Your task to perform on an android device: When is my next appointment? Image 0: 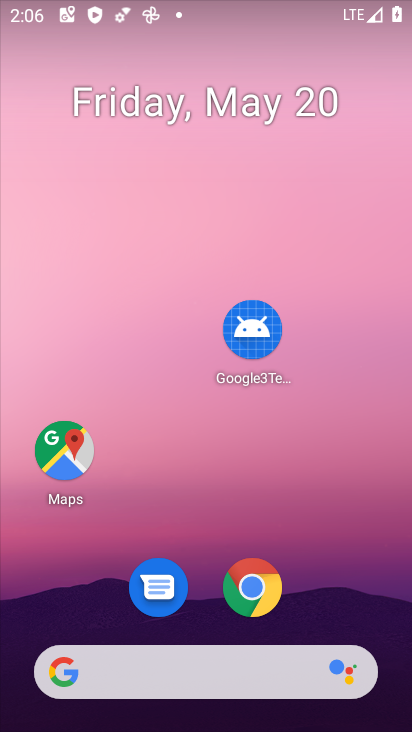
Step 0: drag from (315, 526) to (259, 91)
Your task to perform on an android device: When is my next appointment? Image 1: 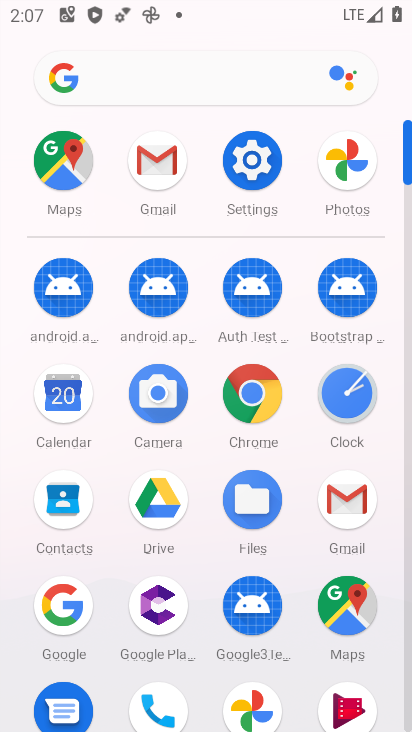
Step 1: click (66, 388)
Your task to perform on an android device: When is my next appointment? Image 2: 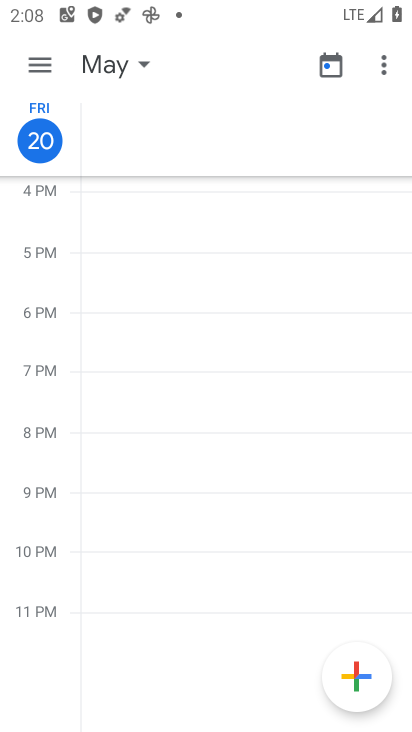
Step 2: drag from (159, 387) to (145, 158)
Your task to perform on an android device: When is my next appointment? Image 3: 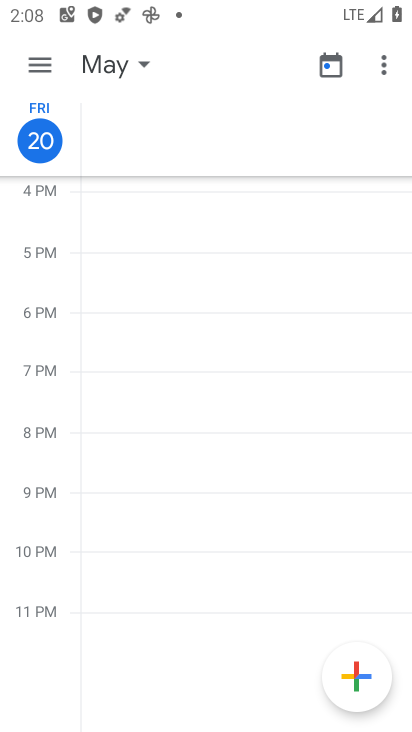
Step 3: click (138, 57)
Your task to perform on an android device: When is my next appointment? Image 4: 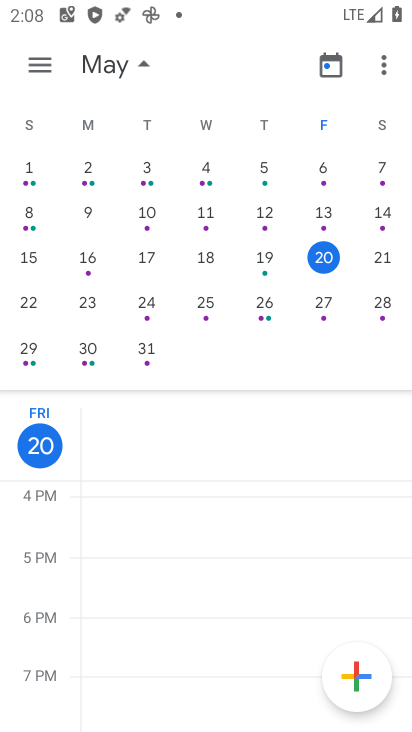
Step 4: click (261, 260)
Your task to perform on an android device: When is my next appointment? Image 5: 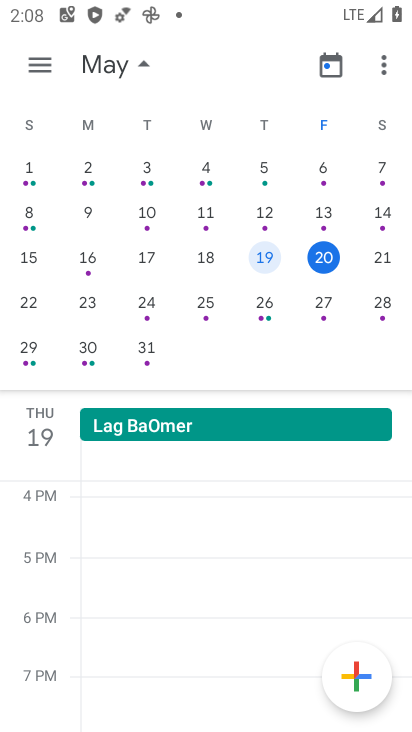
Step 5: task complete